Your task to perform on an android device: check data usage Image 0: 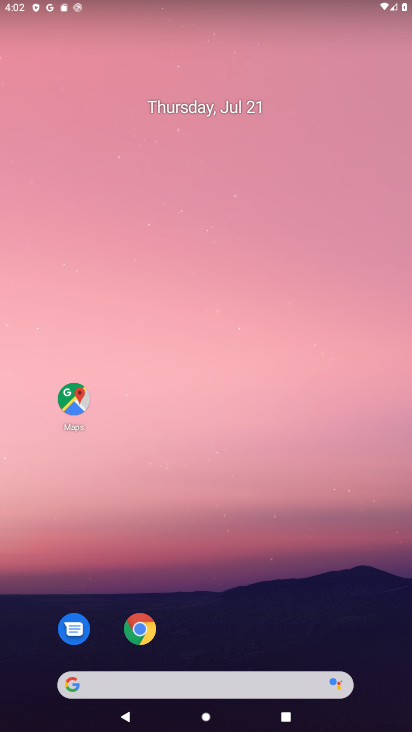
Step 0: drag from (234, 585) to (168, 125)
Your task to perform on an android device: check data usage Image 1: 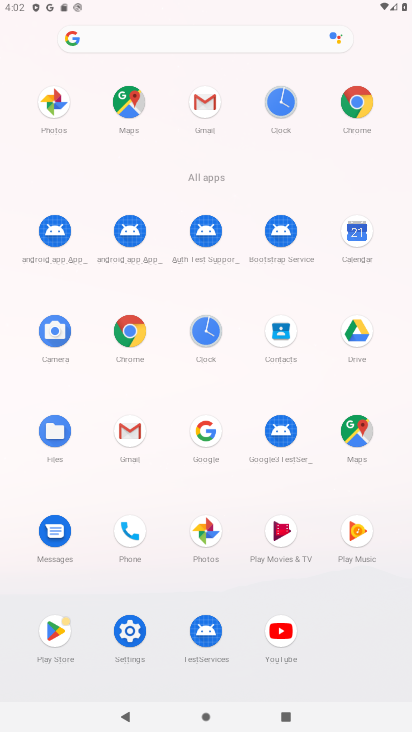
Step 1: click (133, 633)
Your task to perform on an android device: check data usage Image 2: 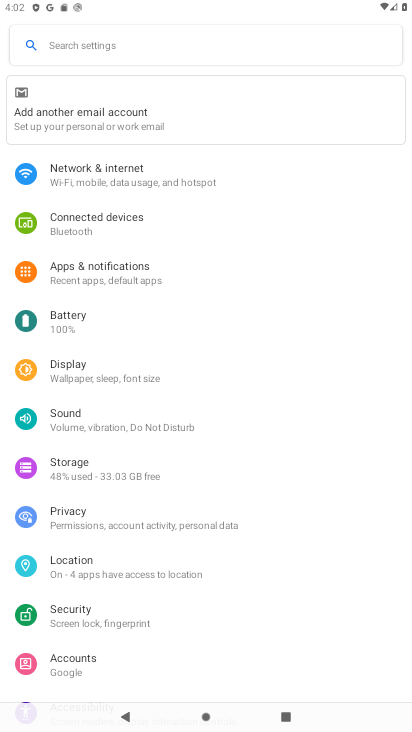
Step 2: click (103, 163)
Your task to perform on an android device: check data usage Image 3: 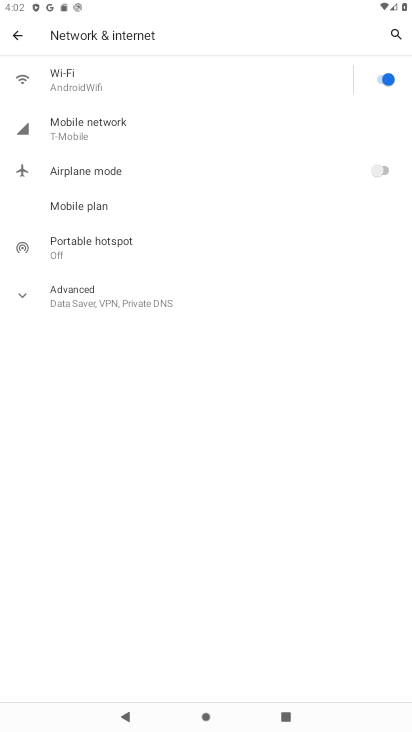
Step 3: click (104, 119)
Your task to perform on an android device: check data usage Image 4: 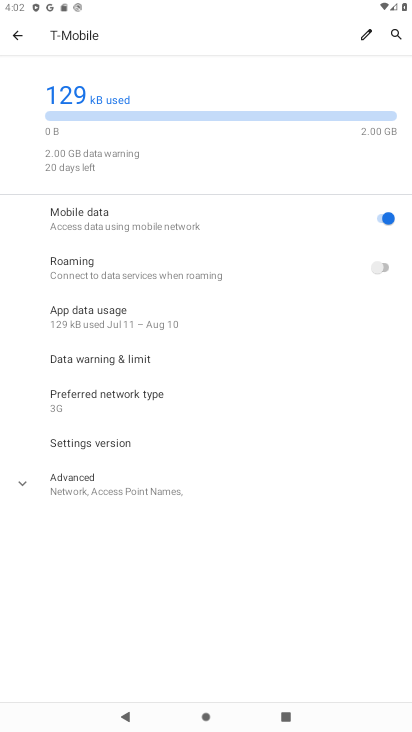
Step 4: task complete